Your task to perform on an android device: Go to Maps Image 0: 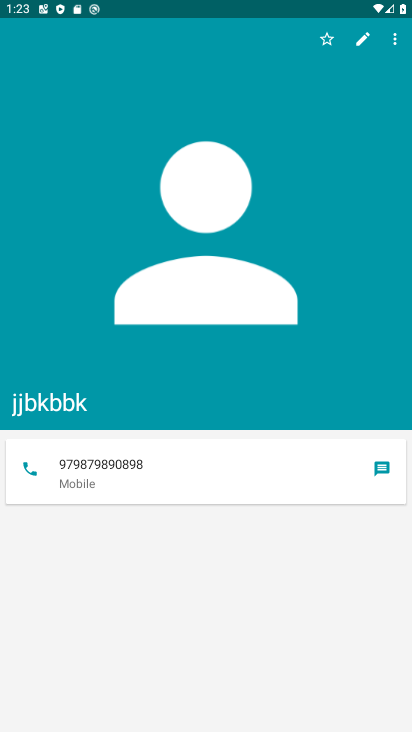
Step 0: press home button
Your task to perform on an android device: Go to Maps Image 1: 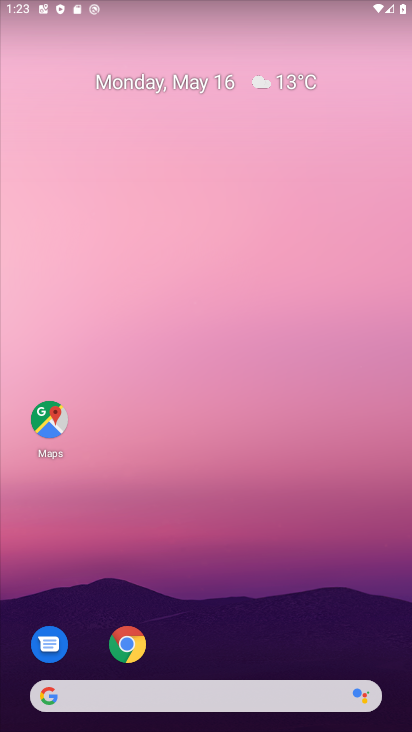
Step 1: drag from (247, 627) to (248, 181)
Your task to perform on an android device: Go to Maps Image 2: 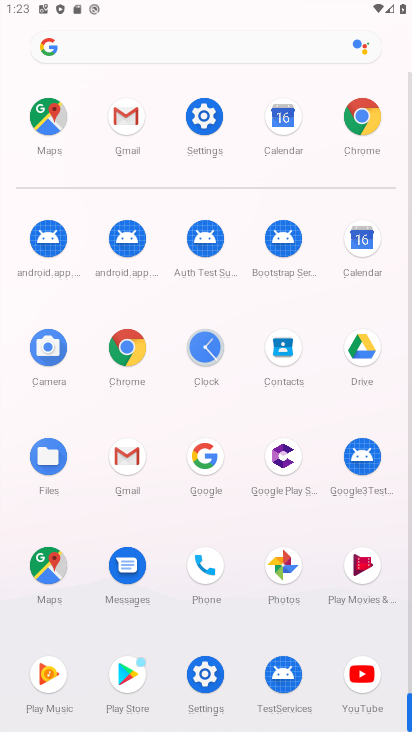
Step 2: click (54, 574)
Your task to perform on an android device: Go to Maps Image 3: 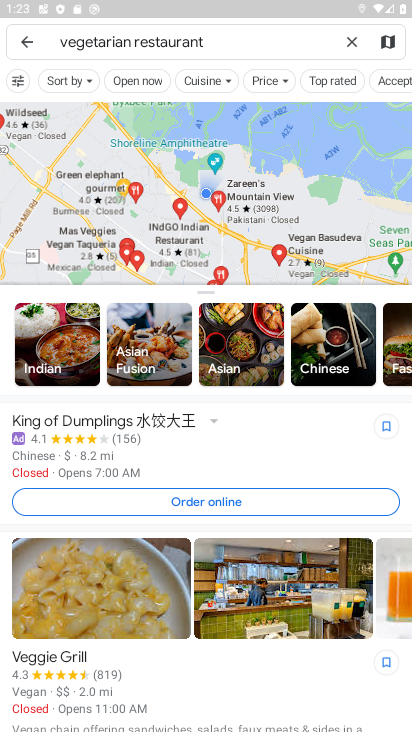
Step 3: task complete